Your task to perform on an android device: check data usage Image 0: 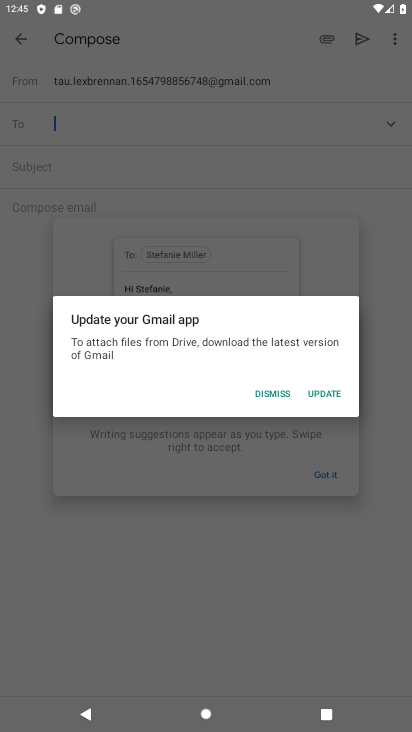
Step 0: press home button
Your task to perform on an android device: check data usage Image 1: 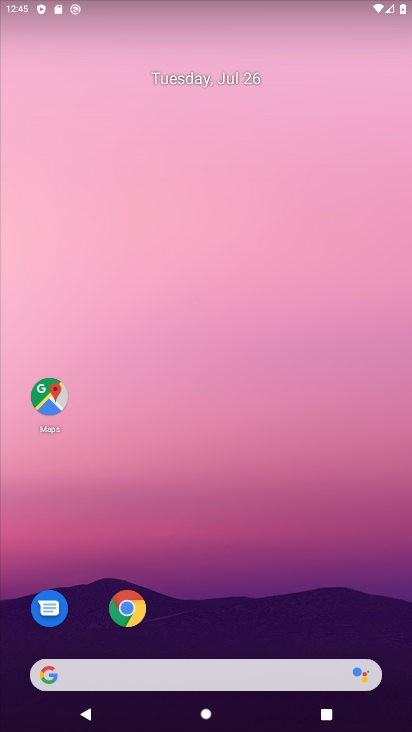
Step 1: drag from (296, 552) to (276, 146)
Your task to perform on an android device: check data usage Image 2: 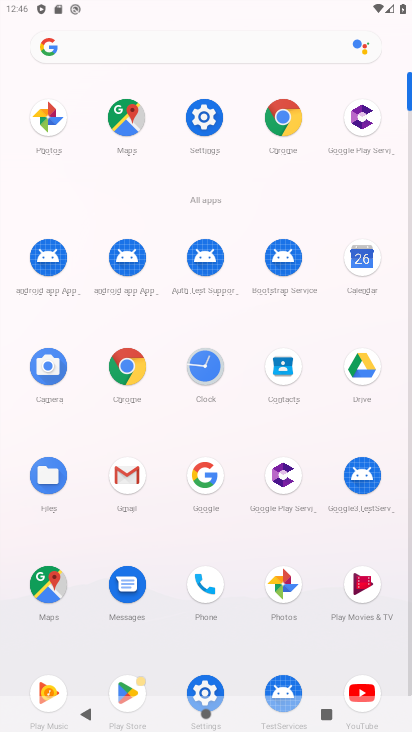
Step 2: click (205, 686)
Your task to perform on an android device: check data usage Image 3: 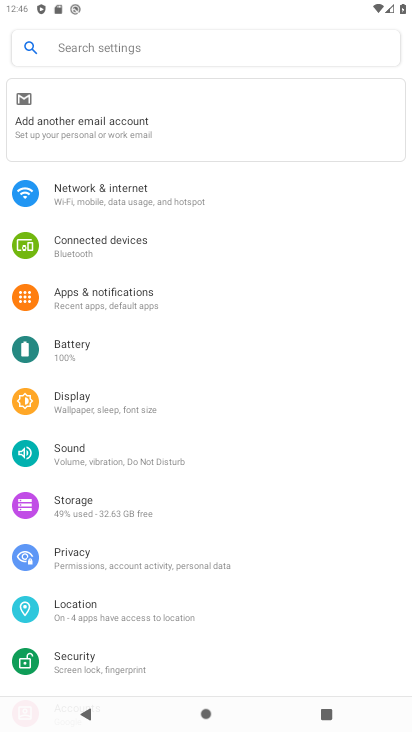
Step 3: click (94, 186)
Your task to perform on an android device: check data usage Image 4: 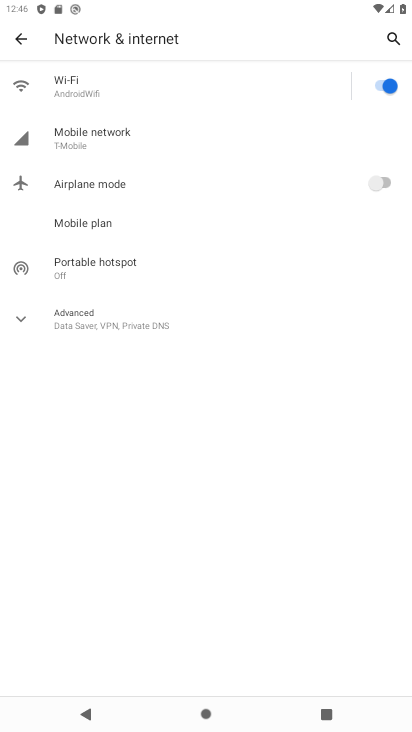
Step 4: task complete